Your task to perform on an android device: Go to Android settings Image 0: 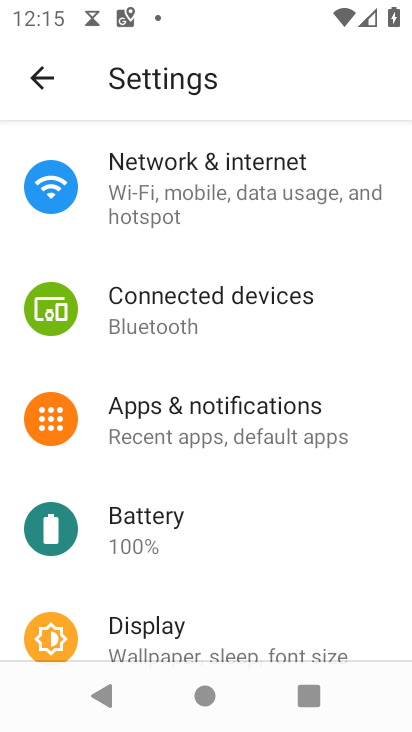
Step 0: drag from (252, 599) to (255, 127)
Your task to perform on an android device: Go to Android settings Image 1: 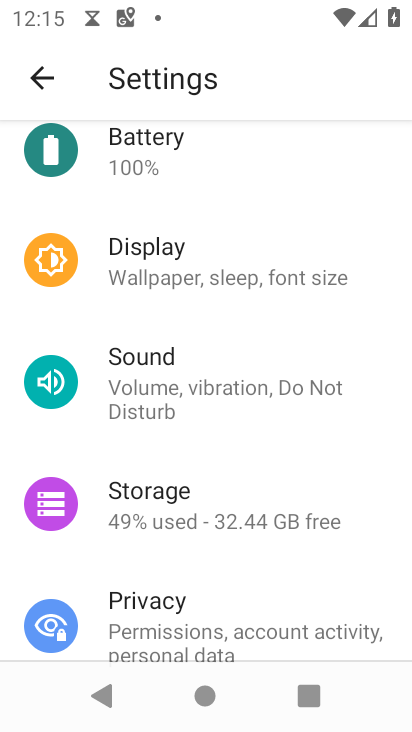
Step 1: drag from (208, 574) to (150, 0)
Your task to perform on an android device: Go to Android settings Image 2: 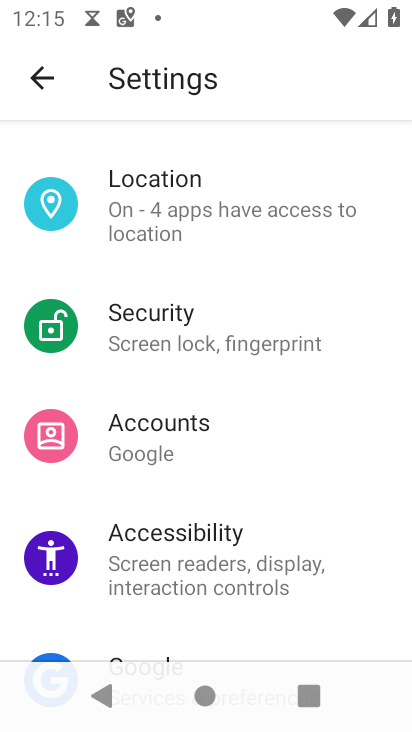
Step 2: drag from (158, 530) to (83, 44)
Your task to perform on an android device: Go to Android settings Image 3: 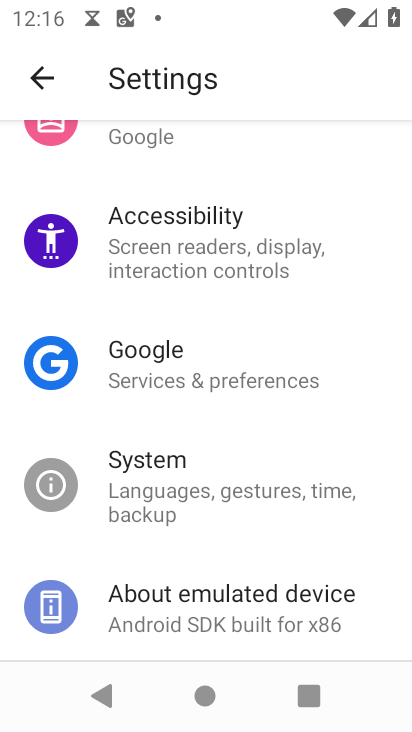
Step 3: click (199, 495)
Your task to perform on an android device: Go to Android settings Image 4: 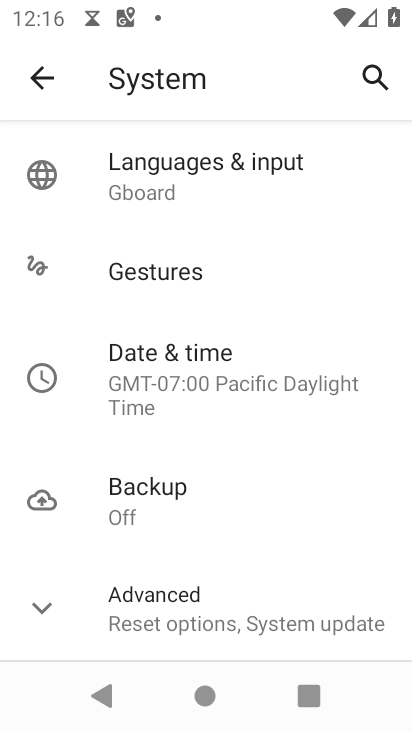
Step 4: task complete